Your task to perform on an android device: Turn on the flashlight Image 0: 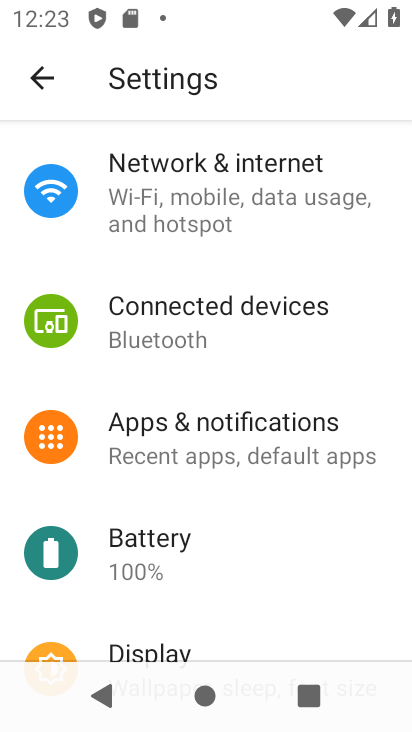
Step 0: drag from (221, 610) to (255, 75)
Your task to perform on an android device: Turn on the flashlight Image 1: 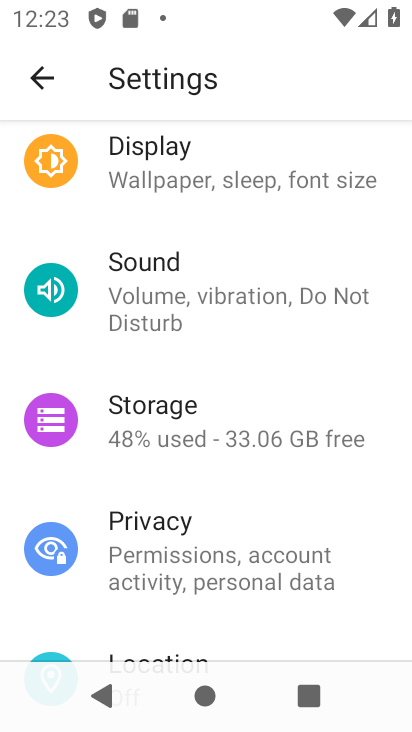
Step 1: drag from (186, 227) to (186, 727)
Your task to perform on an android device: Turn on the flashlight Image 2: 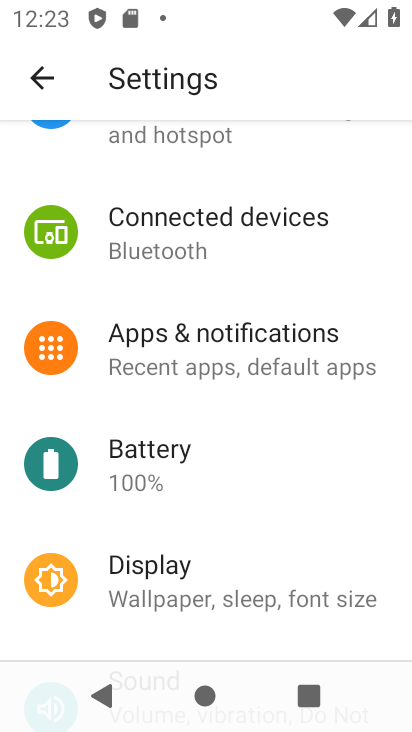
Step 2: drag from (249, 274) to (224, 708)
Your task to perform on an android device: Turn on the flashlight Image 3: 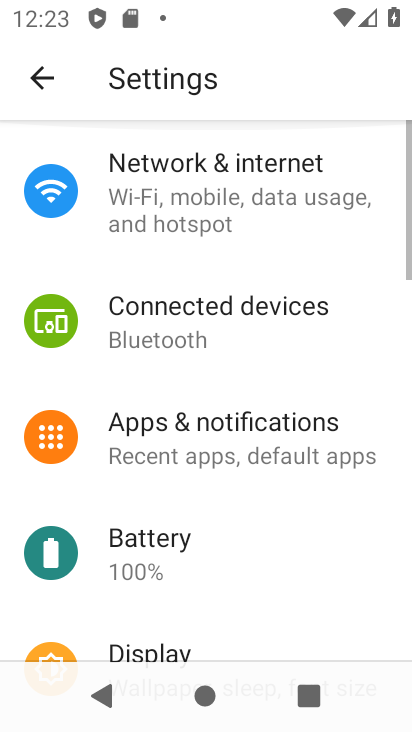
Step 3: drag from (235, 231) to (181, 642)
Your task to perform on an android device: Turn on the flashlight Image 4: 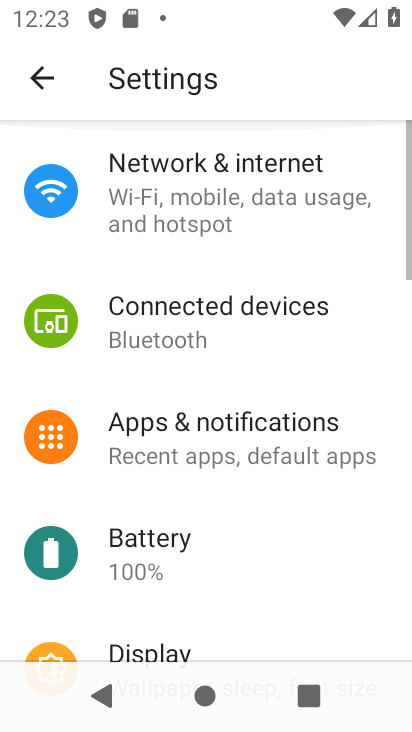
Step 4: click (44, 80)
Your task to perform on an android device: Turn on the flashlight Image 5: 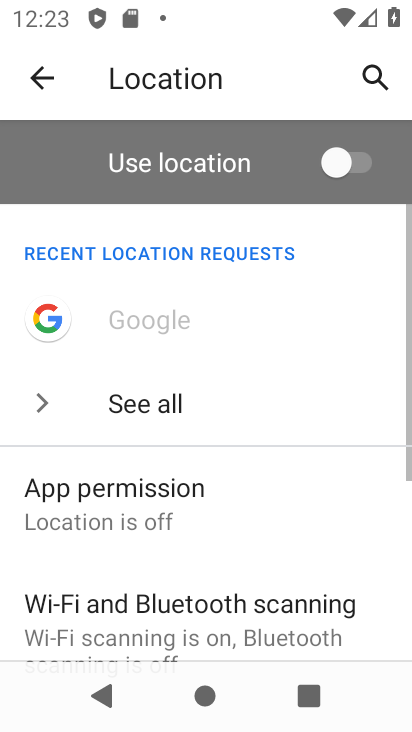
Step 5: click (41, 68)
Your task to perform on an android device: Turn on the flashlight Image 6: 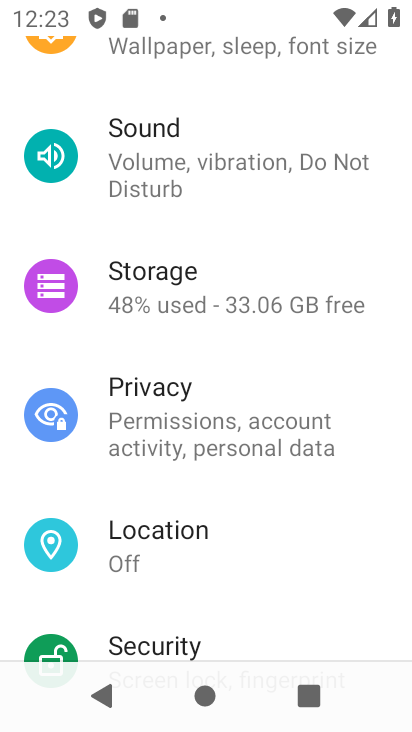
Step 6: drag from (187, 123) to (190, 657)
Your task to perform on an android device: Turn on the flashlight Image 7: 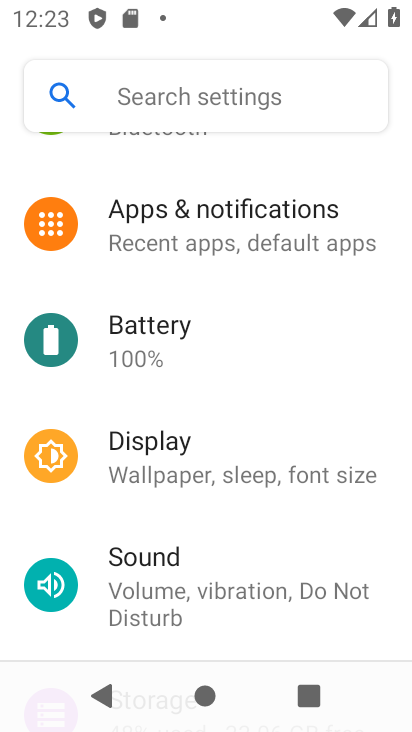
Step 7: click (162, 93)
Your task to perform on an android device: Turn on the flashlight Image 8: 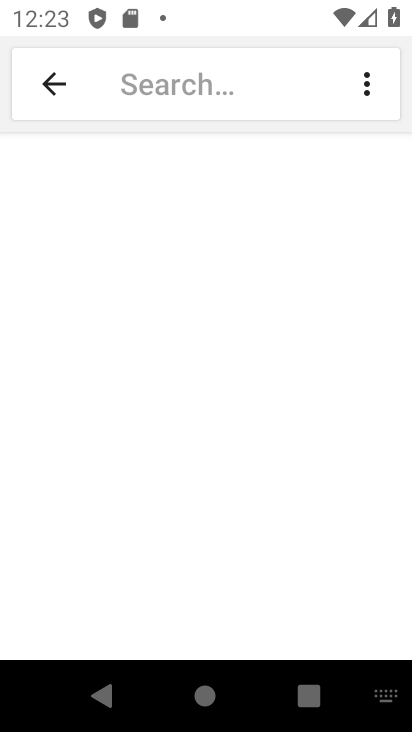
Step 8: type "flashlight"
Your task to perform on an android device: Turn on the flashlight Image 9: 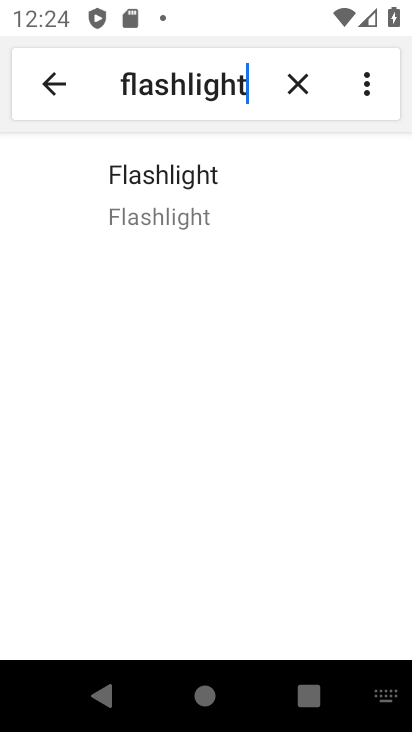
Step 9: click (177, 180)
Your task to perform on an android device: Turn on the flashlight Image 10: 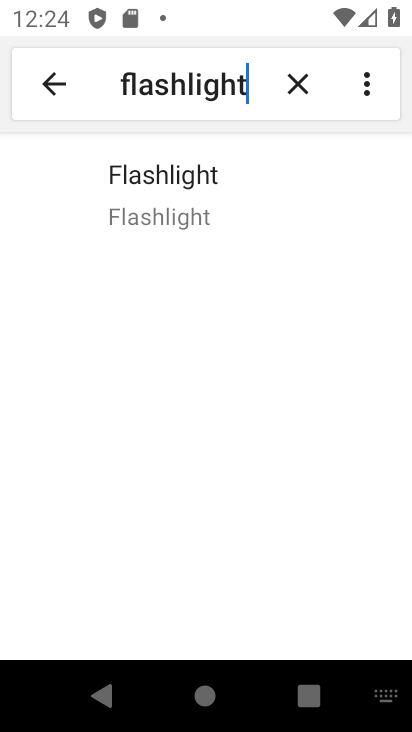
Step 10: task complete